Your task to perform on an android device: Open Chrome and go to the settings page Image 0: 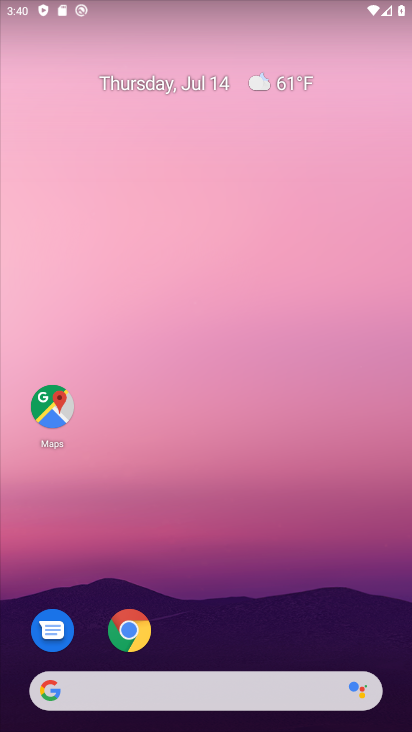
Step 0: drag from (240, 629) to (238, 220)
Your task to perform on an android device: Open Chrome and go to the settings page Image 1: 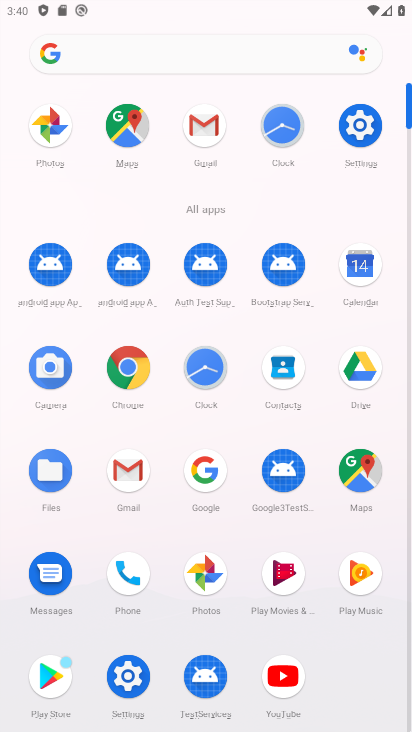
Step 1: click (130, 383)
Your task to perform on an android device: Open Chrome and go to the settings page Image 2: 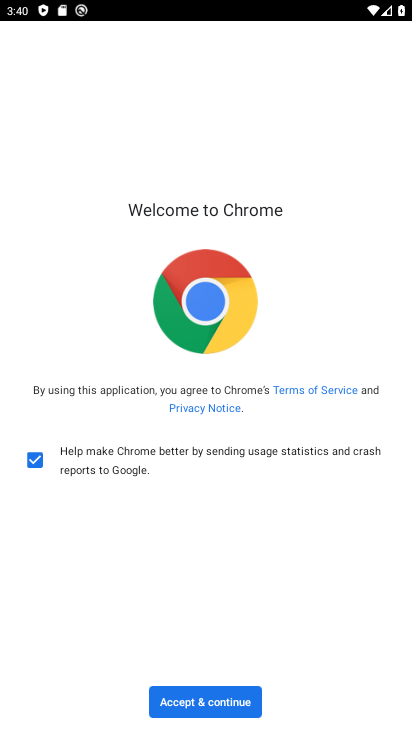
Step 2: click (231, 708)
Your task to perform on an android device: Open Chrome and go to the settings page Image 3: 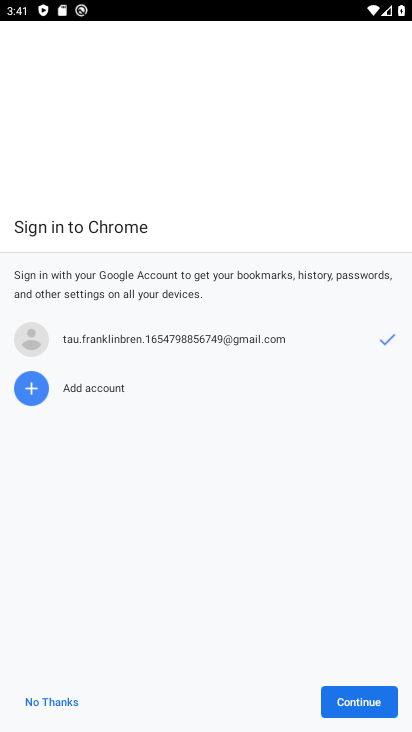
Step 3: click (344, 715)
Your task to perform on an android device: Open Chrome and go to the settings page Image 4: 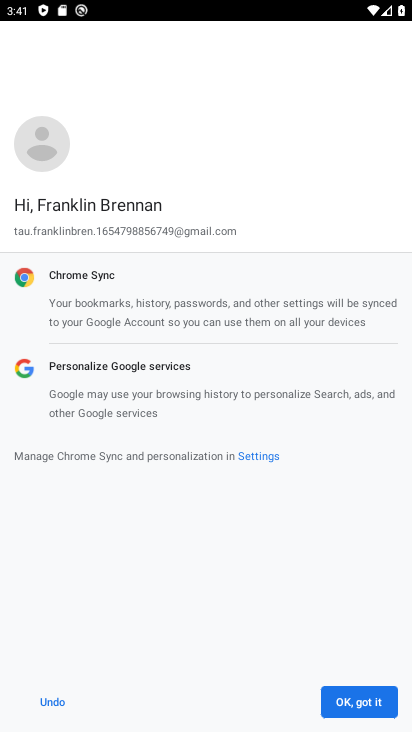
Step 4: click (339, 696)
Your task to perform on an android device: Open Chrome and go to the settings page Image 5: 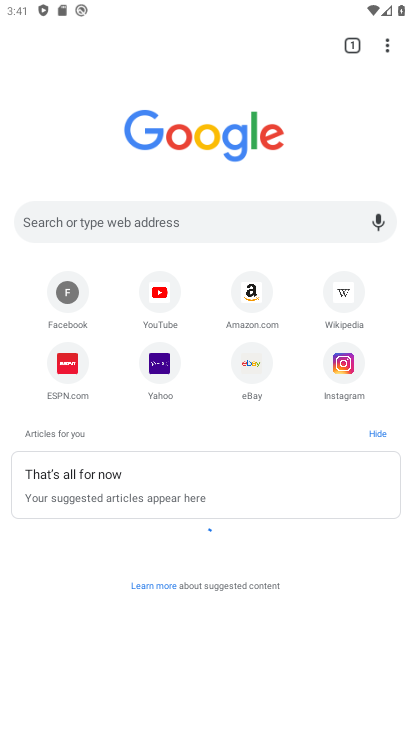
Step 5: click (385, 46)
Your task to perform on an android device: Open Chrome and go to the settings page Image 6: 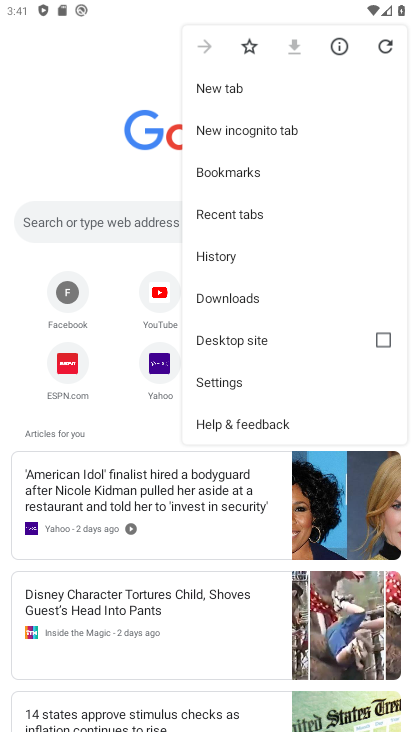
Step 6: click (260, 388)
Your task to perform on an android device: Open Chrome and go to the settings page Image 7: 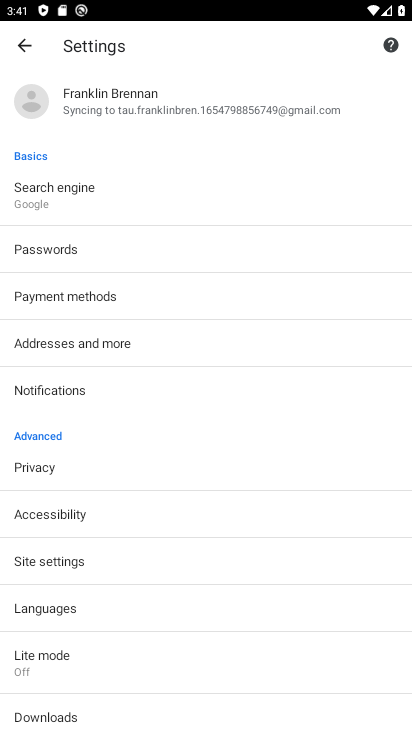
Step 7: task complete